Your task to perform on an android device: See recent photos Image 0: 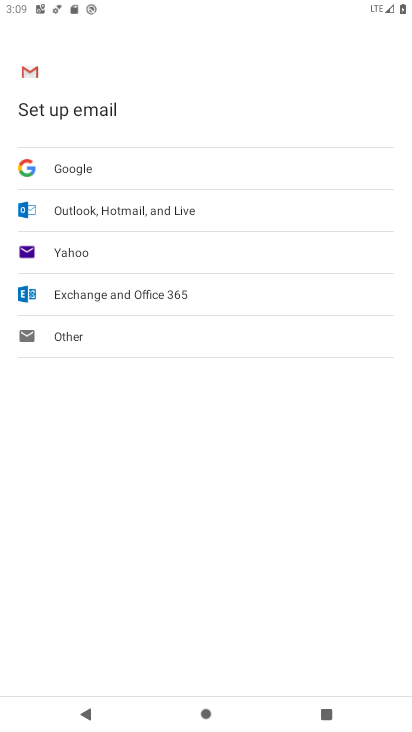
Step 0: press home button
Your task to perform on an android device: See recent photos Image 1: 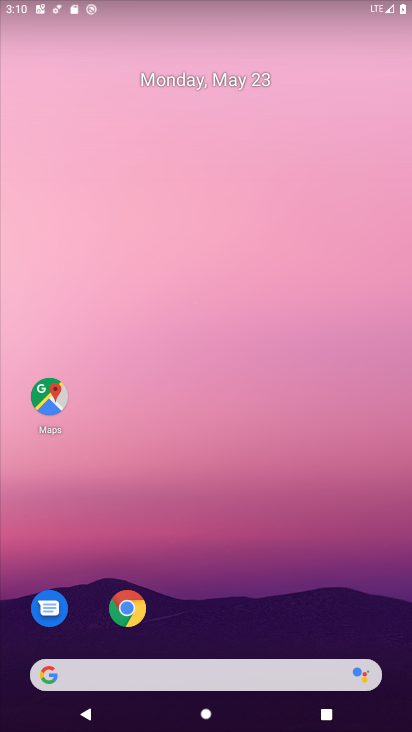
Step 1: drag from (241, 610) to (220, 51)
Your task to perform on an android device: See recent photos Image 2: 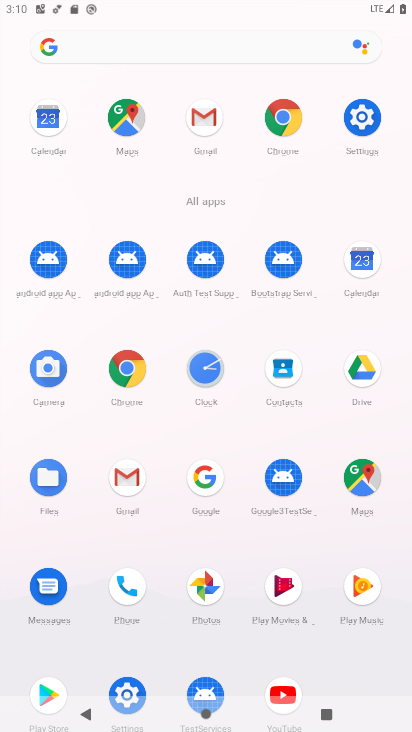
Step 2: click (206, 591)
Your task to perform on an android device: See recent photos Image 3: 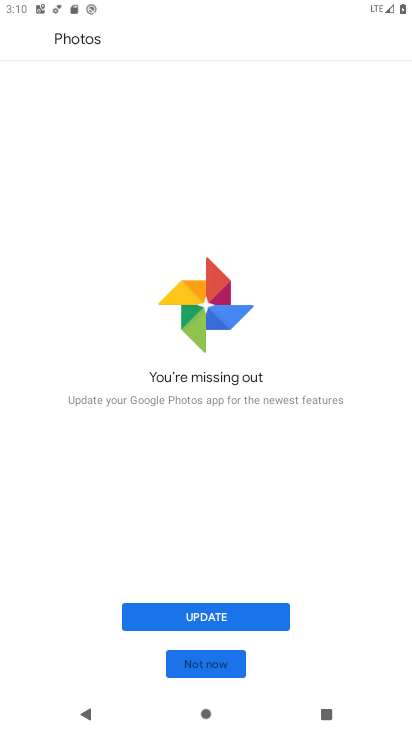
Step 3: click (212, 611)
Your task to perform on an android device: See recent photos Image 4: 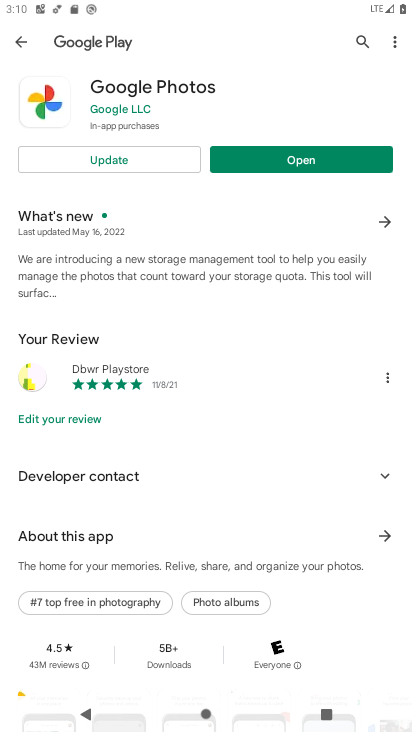
Step 4: click (116, 154)
Your task to perform on an android device: See recent photos Image 5: 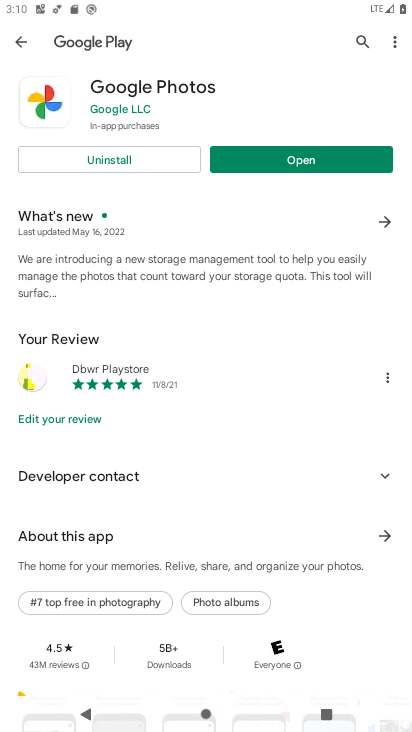
Step 5: click (361, 155)
Your task to perform on an android device: See recent photos Image 6: 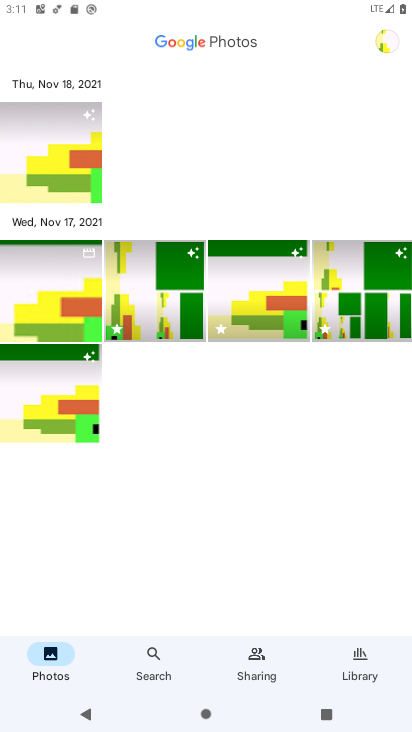
Step 6: task complete